Your task to perform on an android device: turn on translation in the chrome app Image 0: 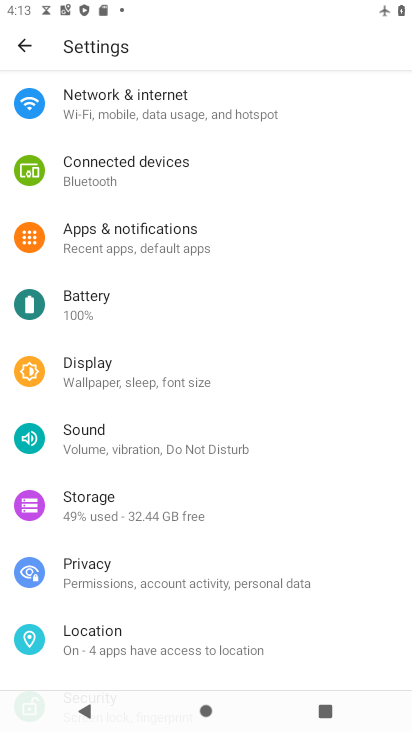
Step 0: press home button
Your task to perform on an android device: turn on translation in the chrome app Image 1: 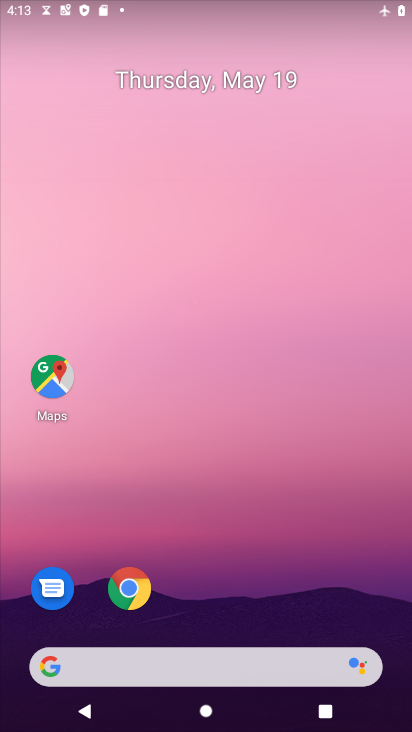
Step 1: click (138, 588)
Your task to perform on an android device: turn on translation in the chrome app Image 2: 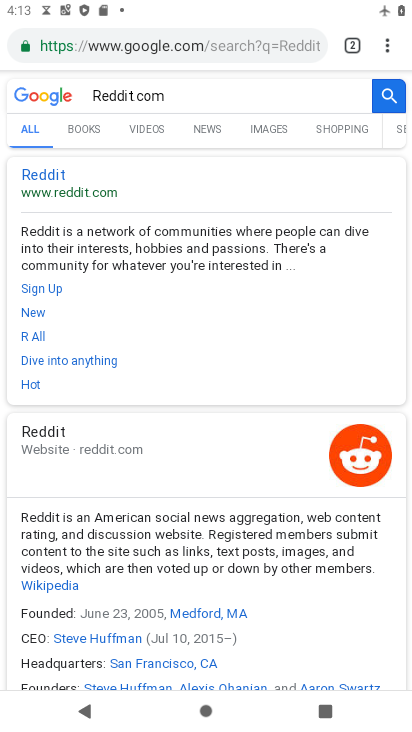
Step 2: click (385, 44)
Your task to perform on an android device: turn on translation in the chrome app Image 3: 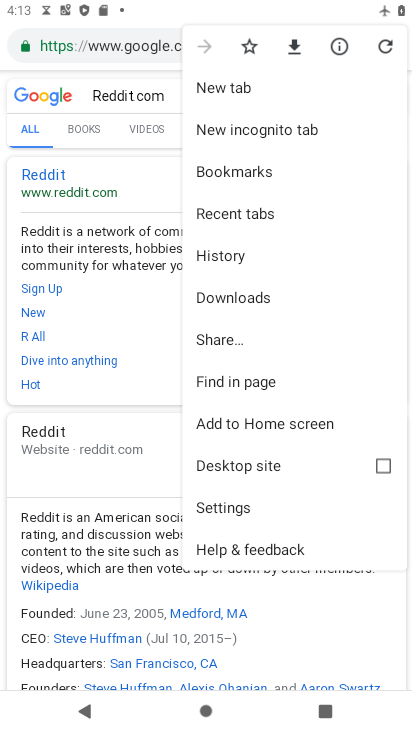
Step 3: click (230, 513)
Your task to perform on an android device: turn on translation in the chrome app Image 4: 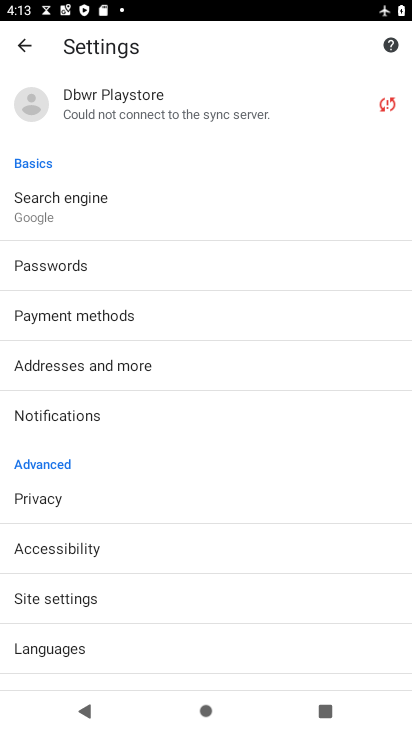
Step 4: drag from (64, 641) to (81, 403)
Your task to perform on an android device: turn on translation in the chrome app Image 5: 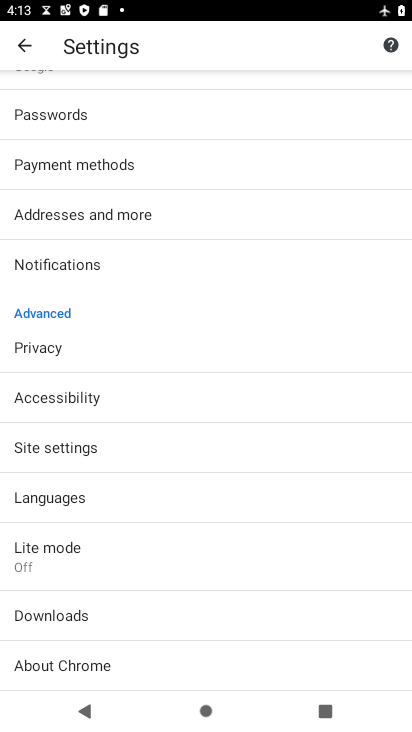
Step 5: click (73, 497)
Your task to perform on an android device: turn on translation in the chrome app Image 6: 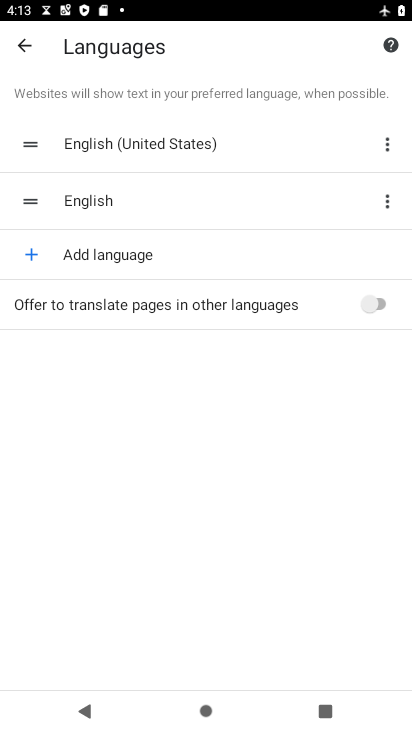
Step 6: click (386, 302)
Your task to perform on an android device: turn on translation in the chrome app Image 7: 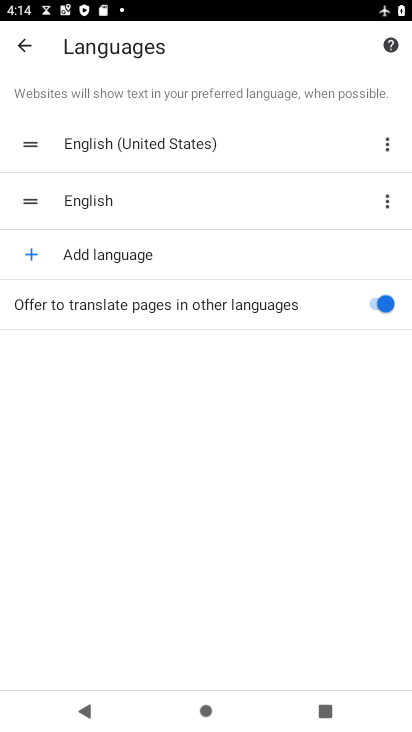
Step 7: task complete